Your task to perform on an android device: change the clock style Image 0: 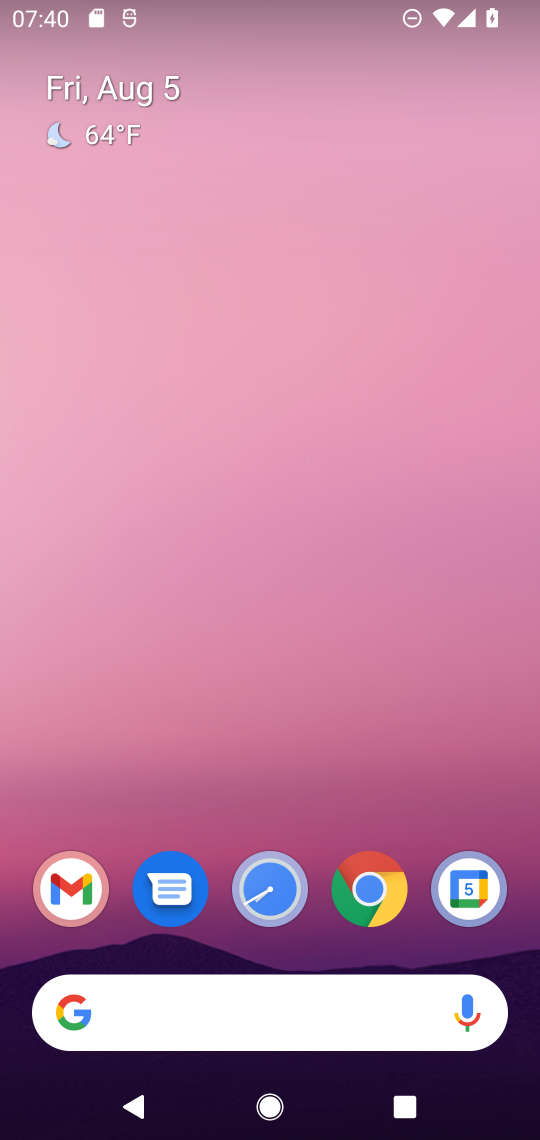
Step 0: drag from (263, 978) to (325, 521)
Your task to perform on an android device: change the clock style Image 1: 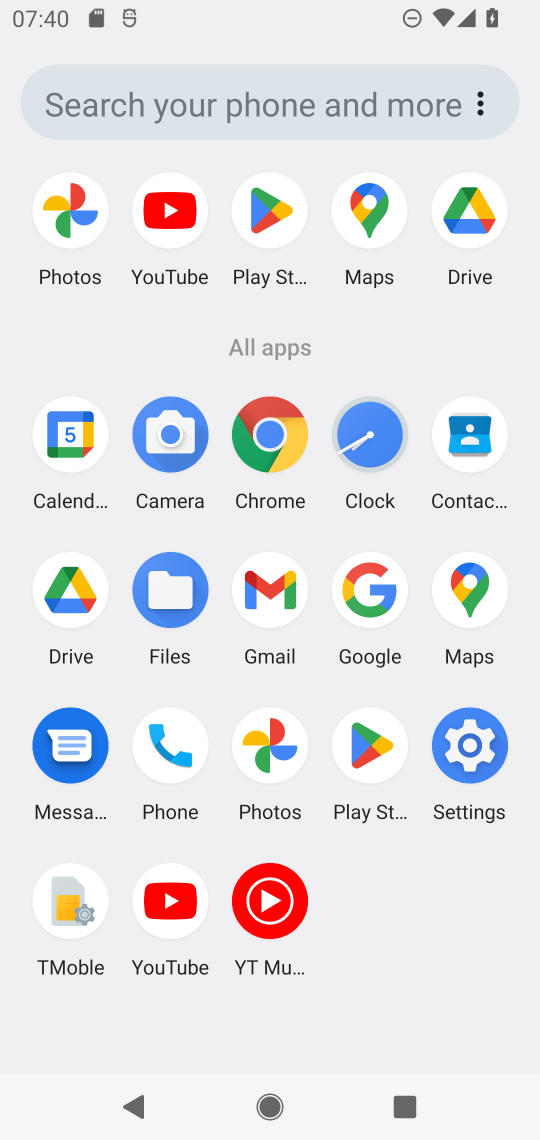
Step 1: click (383, 434)
Your task to perform on an android device: change the clock style Image 2: 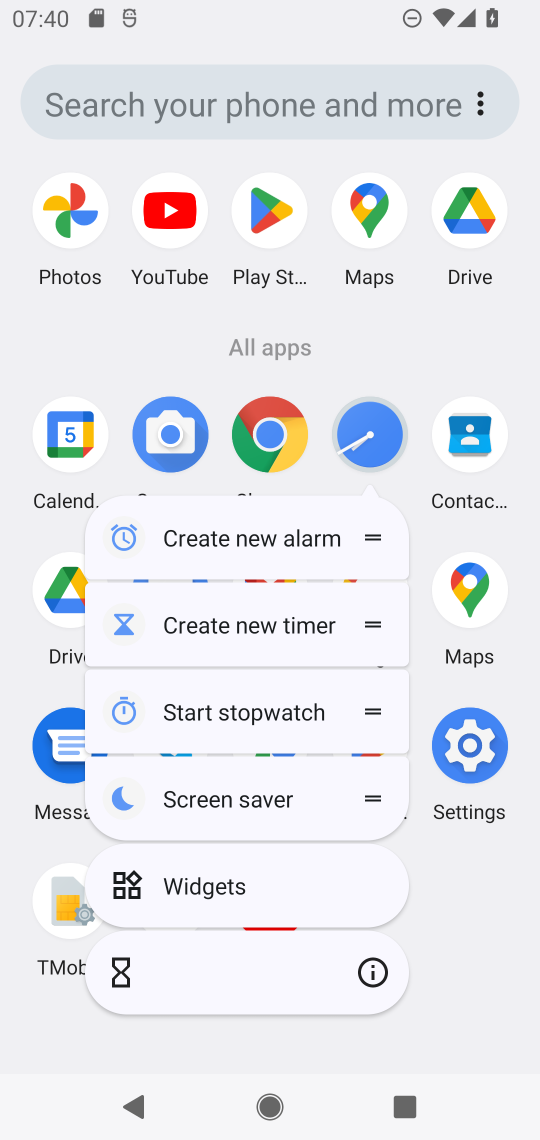
Step 2: click (383, 433)
Your task to perform on an android device: change the clock style Image 3: 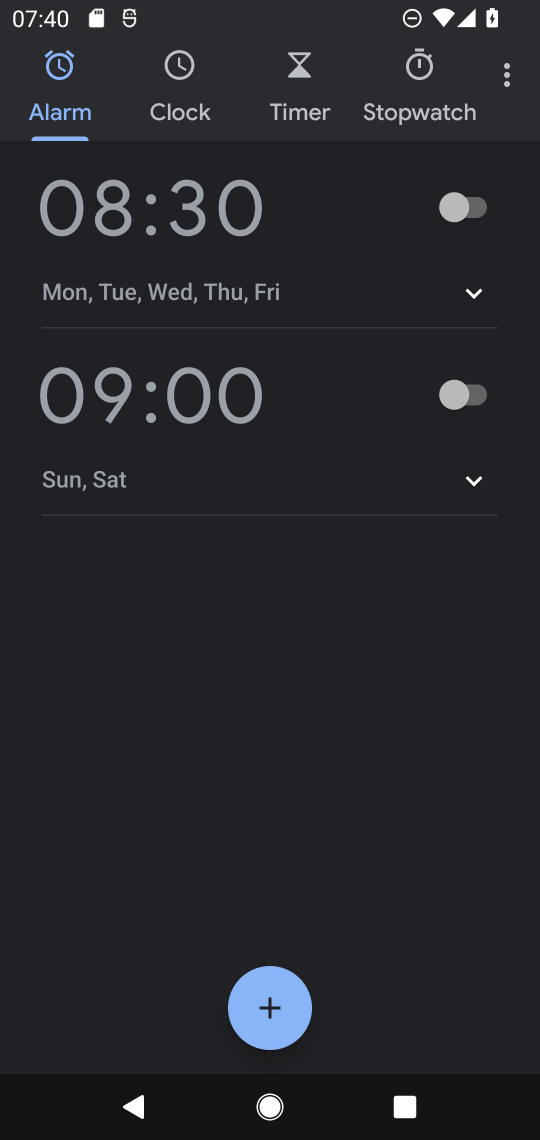
Step 3: click (505, 80)
Your task to perform on an android device: change the clock style Image 4: 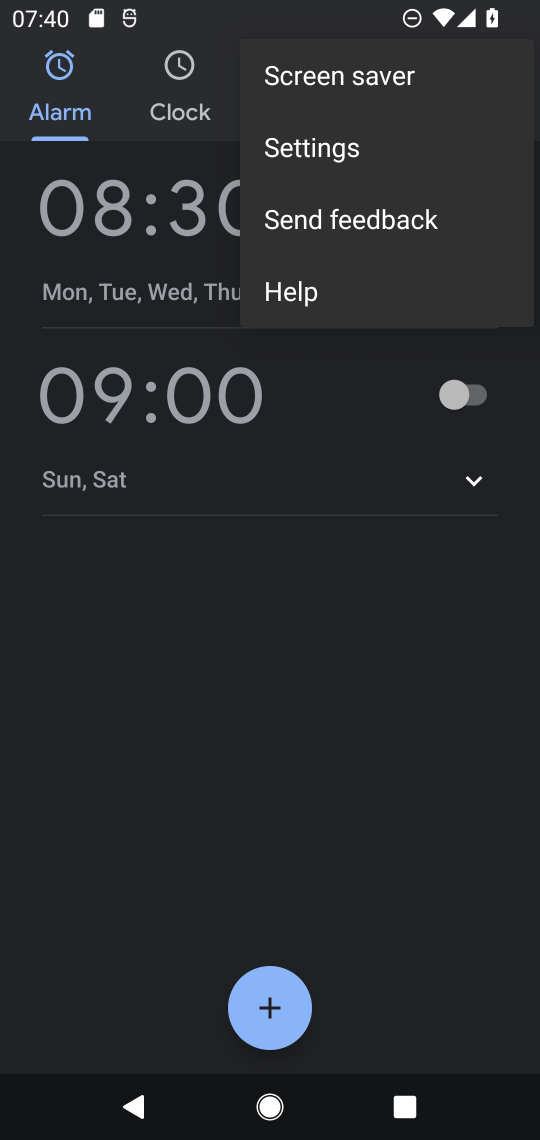
Step 4: click (336, 154)
Your task to perform on an android device: change the clock style Image 5: 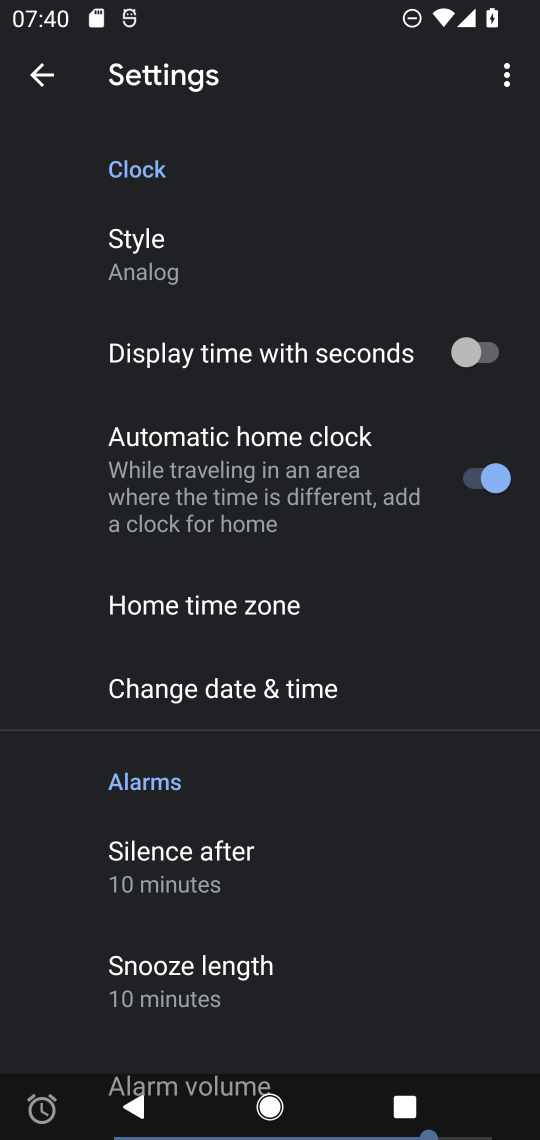
Step 5: click (164, 272)
Your task to perform on an android device: change the clock style Image 6: 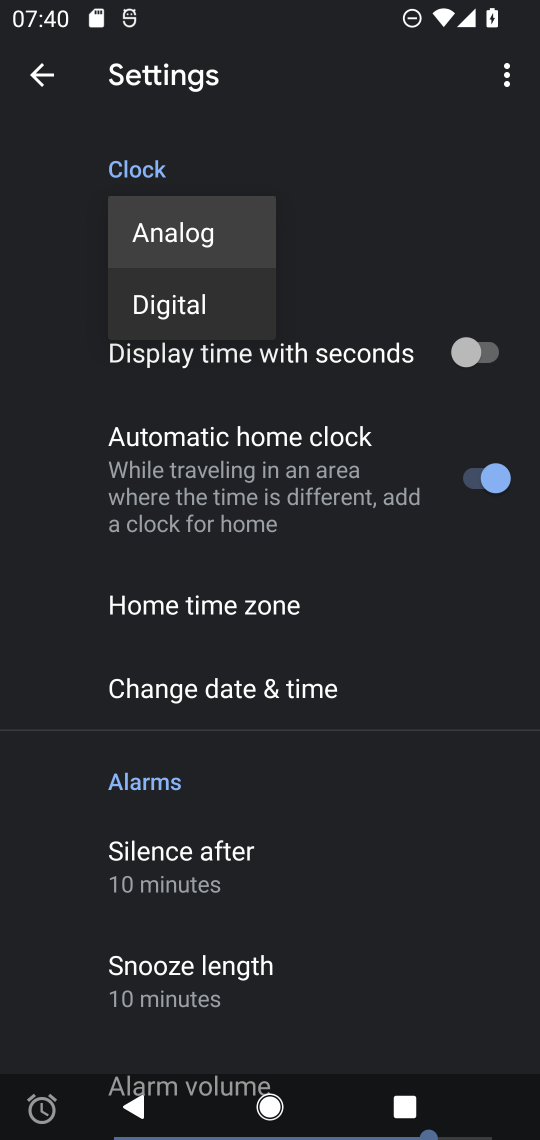
Step 6: click (179, 302)
Your task to perform on an android device: change the clock style Image 7: 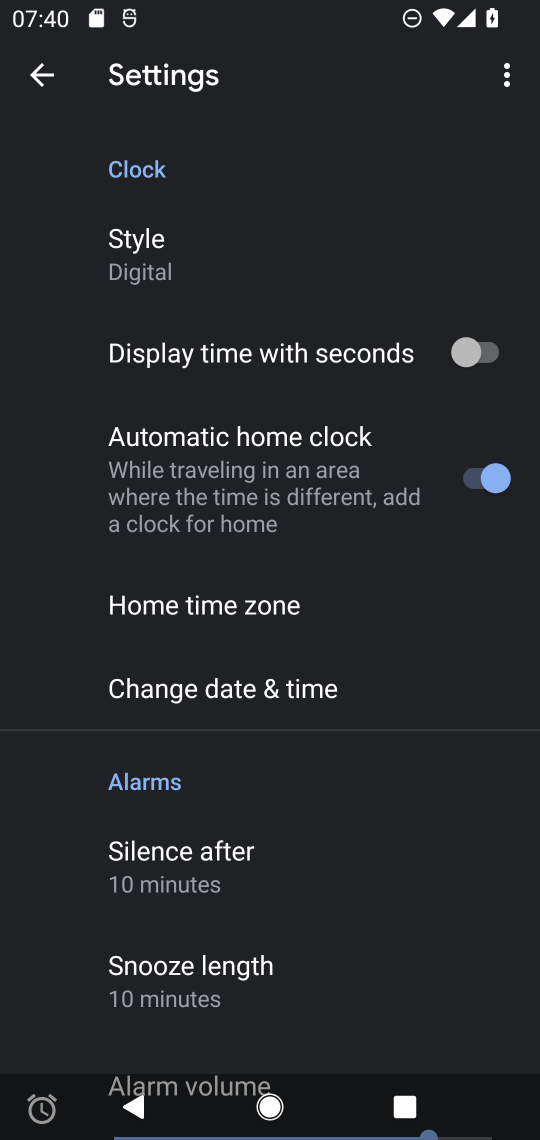
Step 7: task complete